Your task to perform on an android device: Open the web browser Image 0: 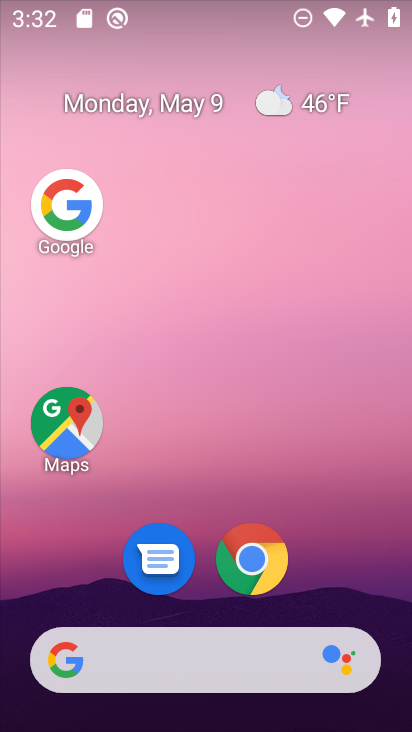
Step 0: click (282, 561)
Your task to perform on an android device: Open the web browser Image 1: 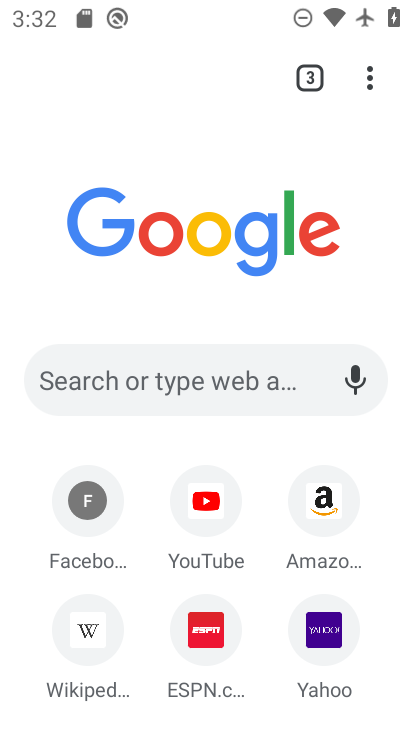
Step 1: task complete